Your task to perform on an android device: set the stopwatch Image 0: 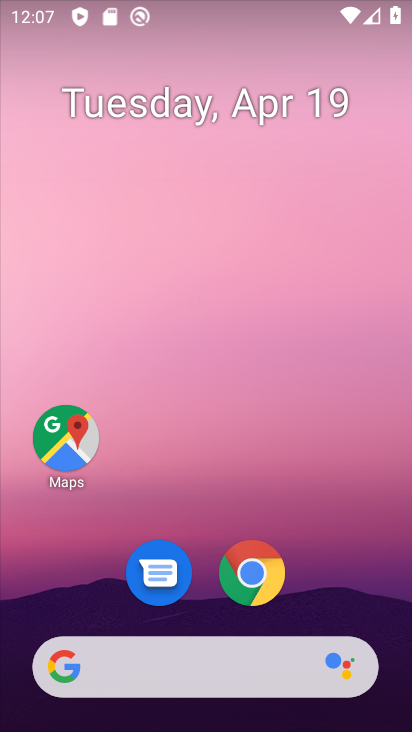
Step 0: drag from (313, 598) to (339, 145)
Your task to perform on an android device: set the stopwatch Image 1: 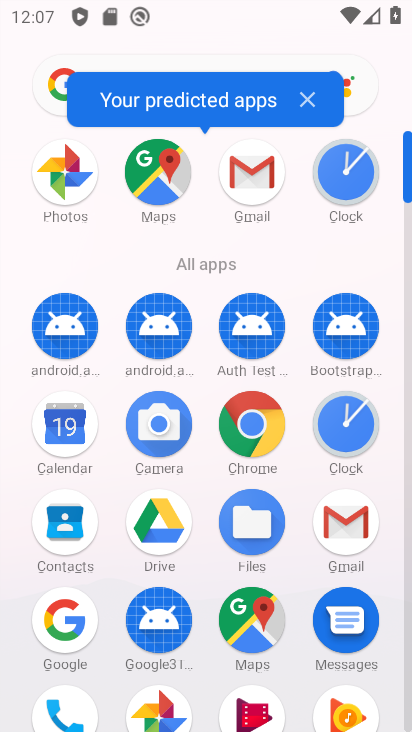
Step 1: click (332, 439)
Your task to perform on an android device: set the stopwatch Image 2: 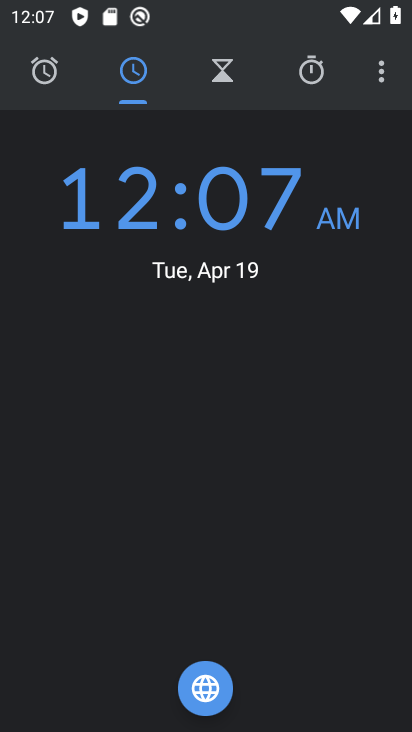
Step 2: click (320, 73)
Your task to perform on an android device: set the stopwatch Image 3: 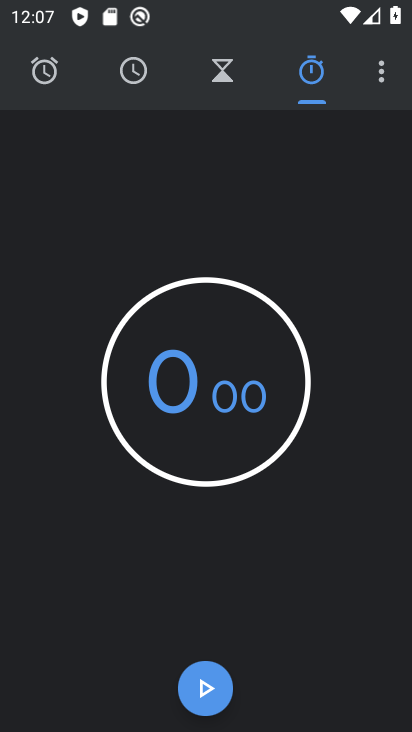
Step 3: click (203, 395)
Your task to perform on an android device: set the stopwatch Image 4: 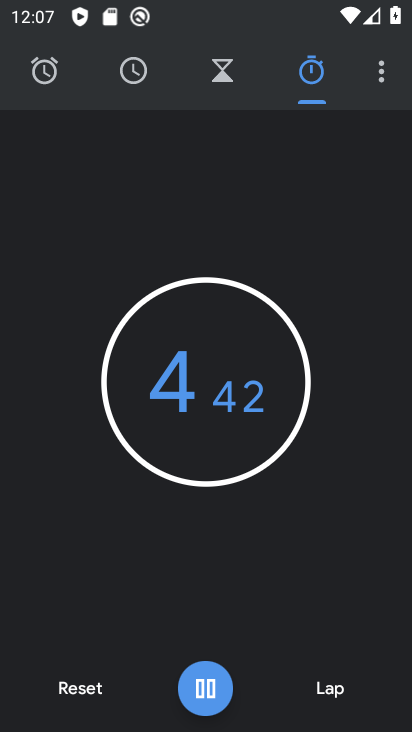
Step 4: task complete